Your task to perform on an android device: What's the weather today? Image 0: 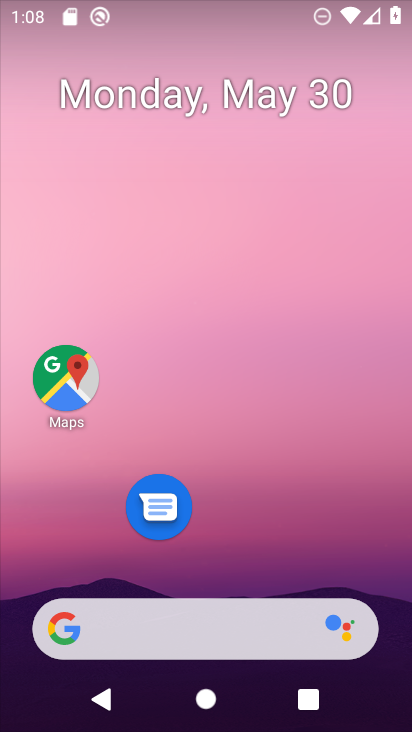
Step 0: drag from (303, 533) to (349, 129)
Your task to perform on an android device: What's the weather today? Image 1: 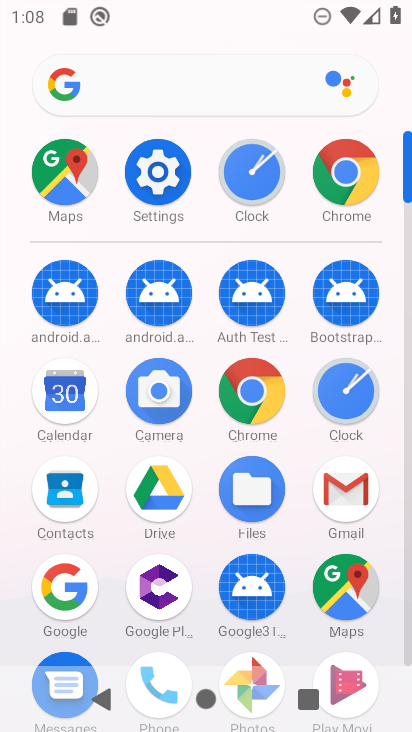
Step 1: click (247, 385)
Your task to perform on an android device: What's the weather today? Image 2: 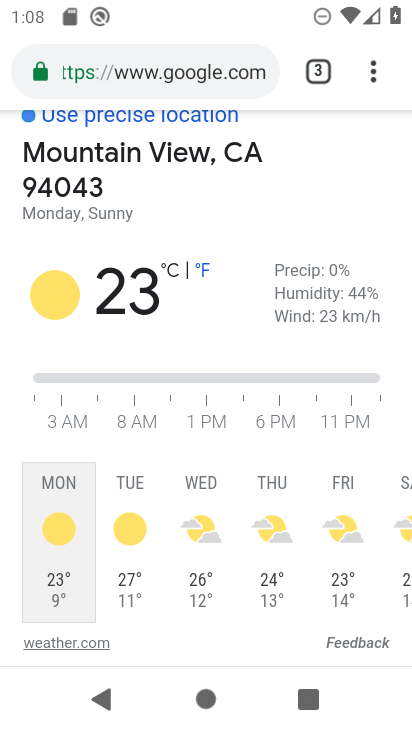
Step 2: click (146, 64)
Your task to perform on an android device: What's the weather today? Image 3: 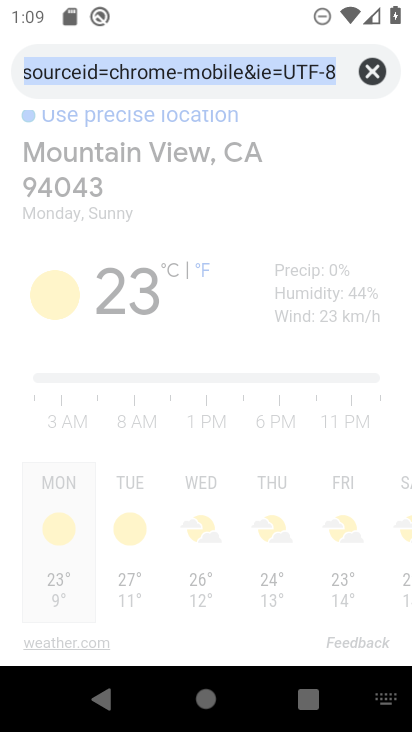
Step 3: click (372, 71)
Your task to perform on an android device: What's the weather today? Image 4: 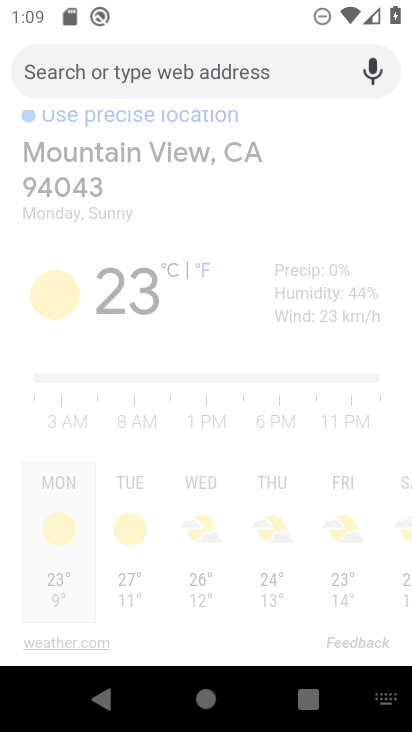
Step 4: type "What's the weather today?"
Your task to perform on an android device: What's the weather today? Image 5: 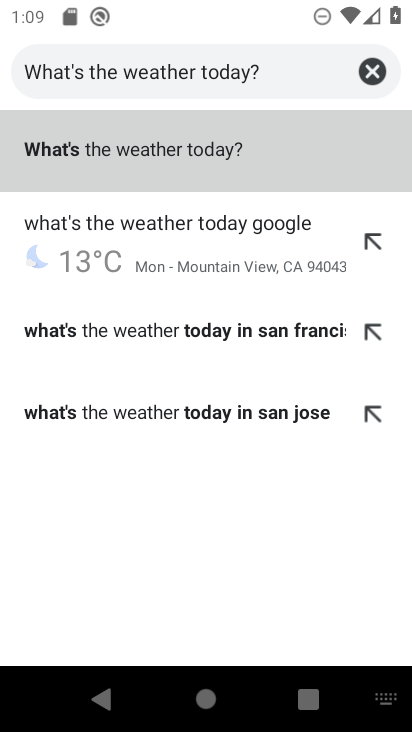
Step 5: click (125, 150)
Your task to perform on an android device: What's the weather today? Image 6: 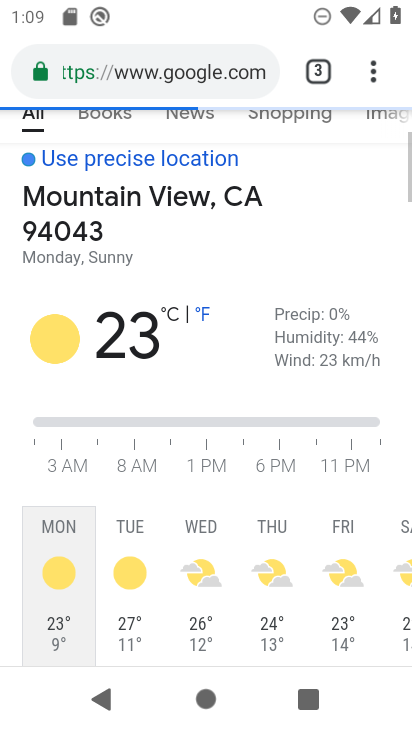
Step 6: task complete